Your task to perform on an android device: turn on translation in the chrome app Image 0: 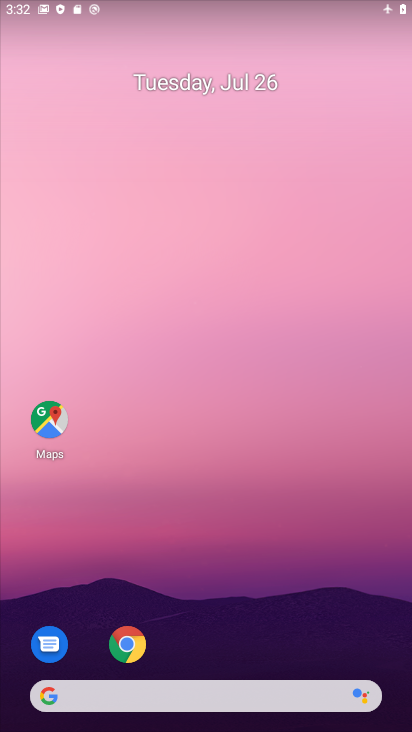
Step 0: click (127, 645)
Your task to perform on an android device: turn on translation in the chrome app Image 1: 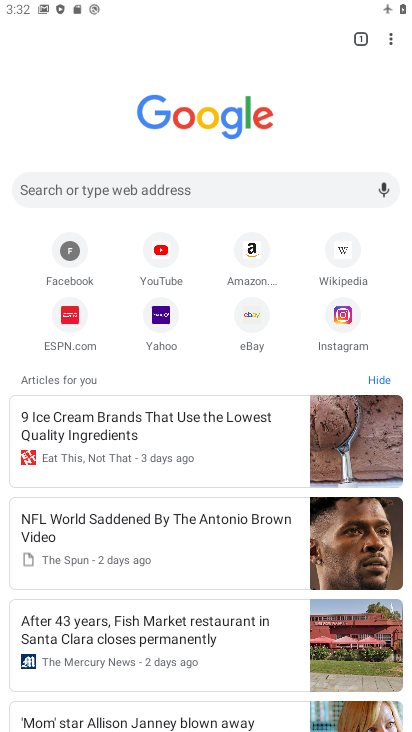
Step 1: click (392, 45)
Your task to perform on an android device: turn on translation in the chrome app Image 2: 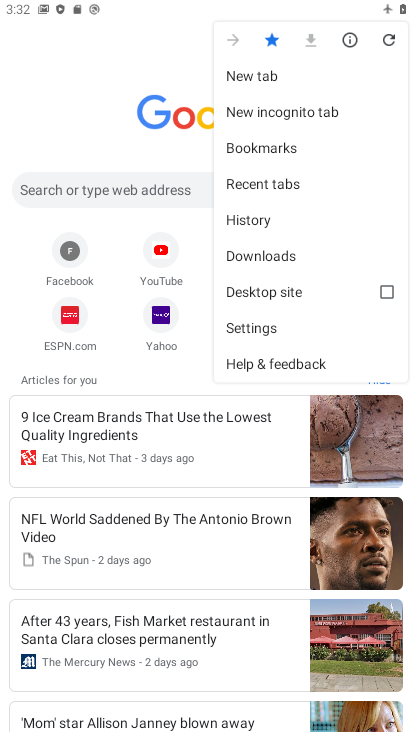
Step 2: click (260, 328)
Your task to perform on an android device: turn on translation in the chrome app Image 3: 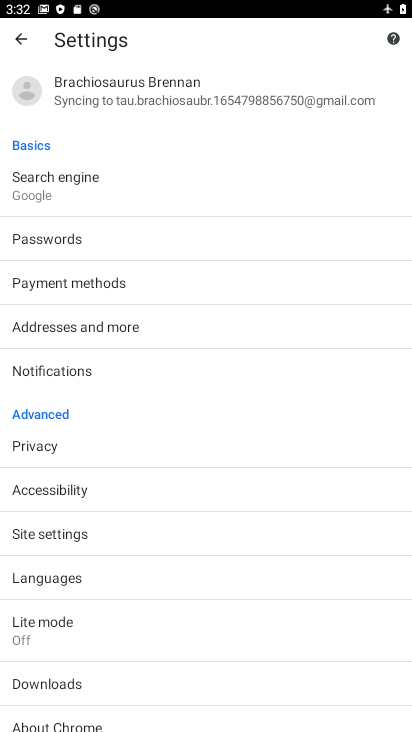
Step 3: click (33, 581)
Your task to perform on an android device: turn on translation in the chrome app Image 4: 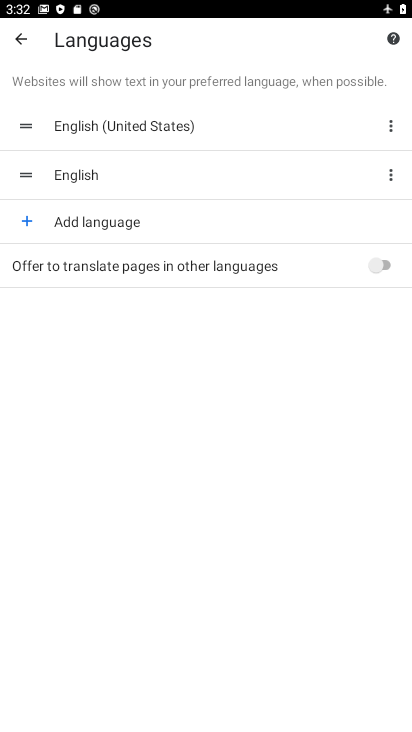
Step 4: click (388, 264)
Your task to perform on an android device: turn on translation in the chrome app Image 5: 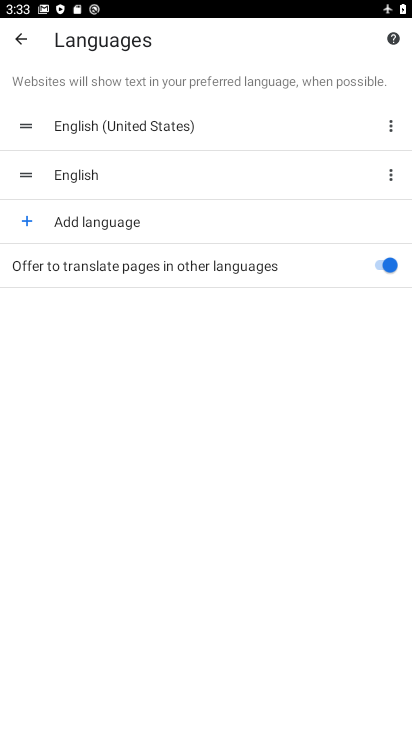
Step 5: task complete